Your task to perform on an android device: Open eBay Image 0: 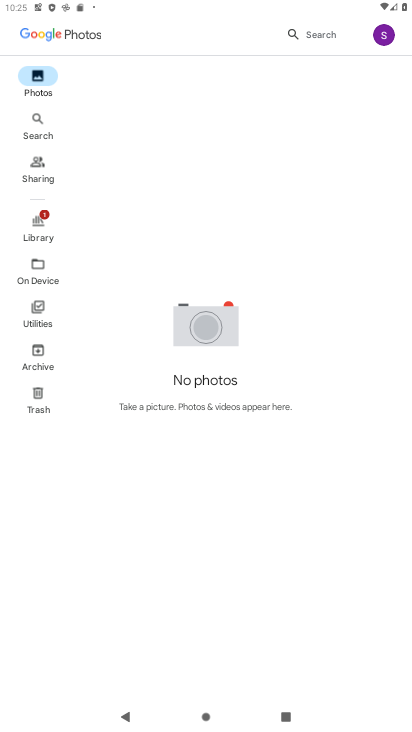
Step 0: press home button
Your task to perform on an android device: Open eBay Image 1: 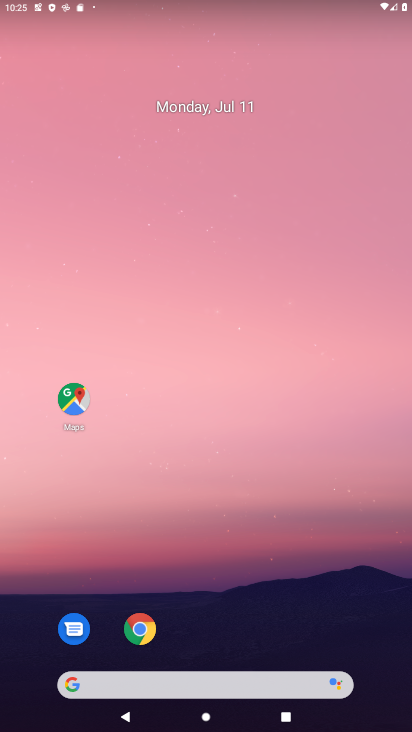
Step 1: drag from (206, 639) to (228, 2)
Your task to perform on an android device: Open eBay Image 2: 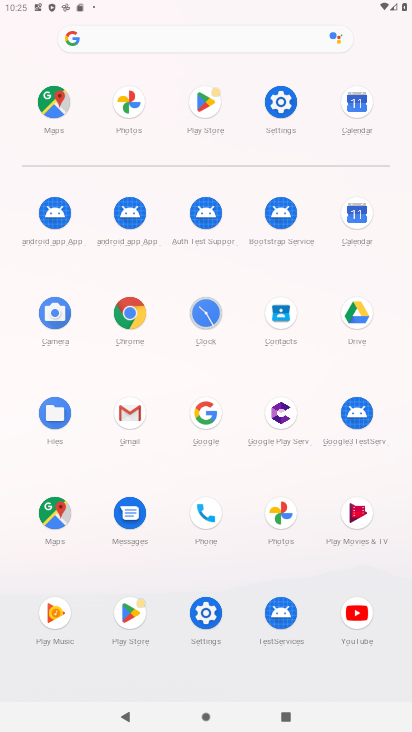
Step 2: click (121, 311)
Your task to perform on an android device: Open eBay Image 3: 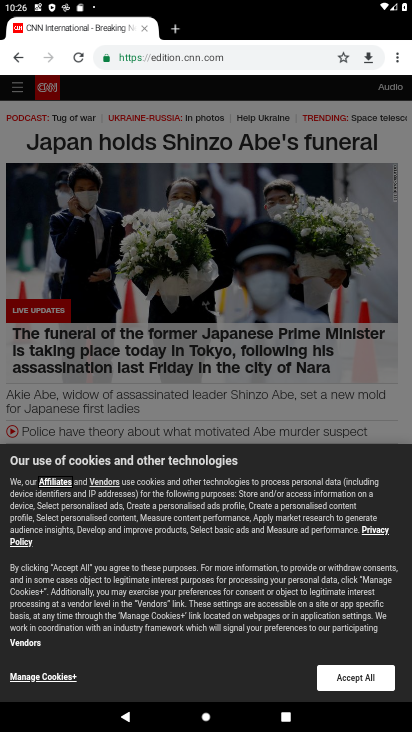
Step 3: click (278, 59)
Your task to perform on an android device: Open eBay Image 4: 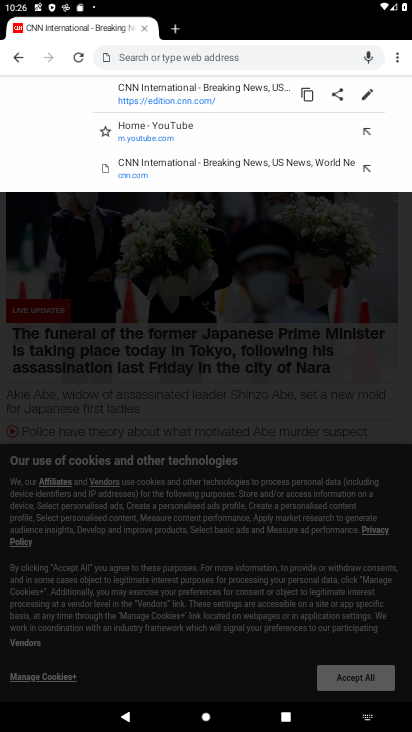
Step 4: type "ebay.com"
Your task to perform on an android device: Open eBay Image 5: 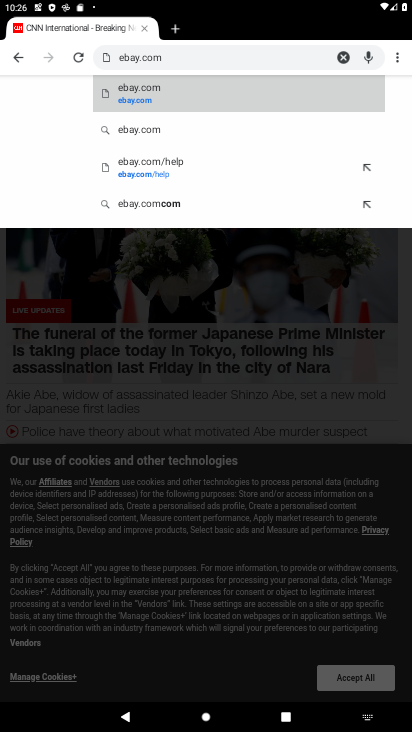
Step 5: click (215, 86)
Your task to perform on an android device: Open eBay Image 6: 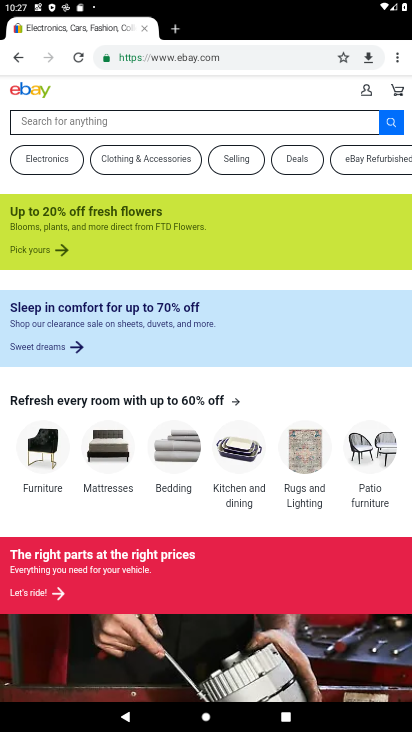
Step 6: task complete